Your task to perform on an android device: Is it going to rain today? Image 0: 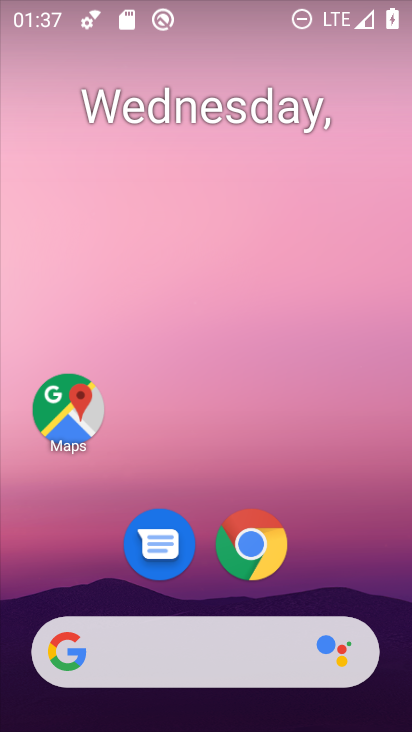
Step 0: drag from (322, 586) to (319, 37)
Your task to perform on an android device: Is it going to rain today? Image 1: 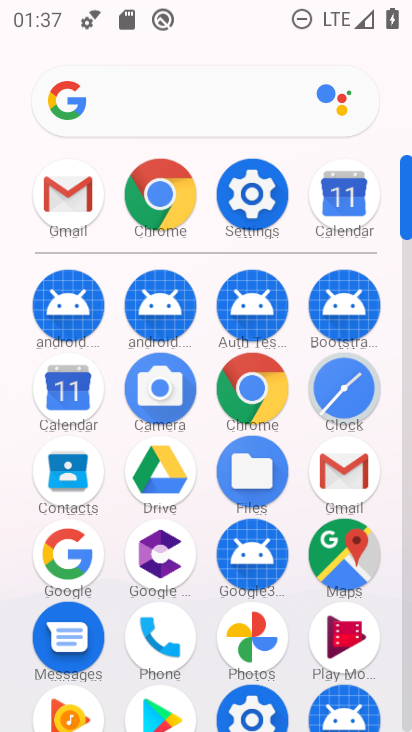
Step 1: click (242, 95)
Your task to perform on an android device: Is it going to rain today? Image 2: 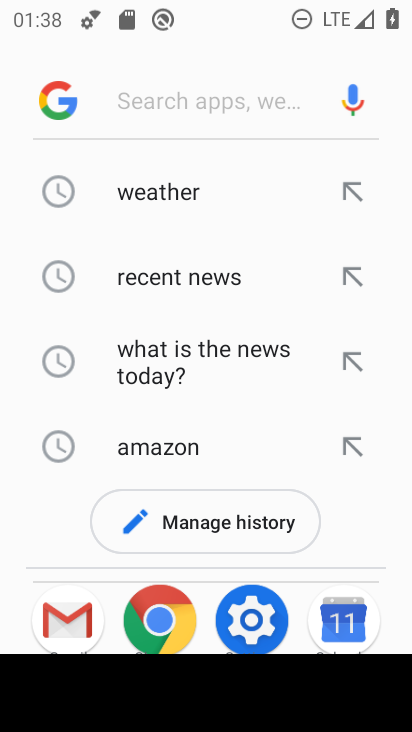
Step 2: type "is it going to rain today"
Your task to perform on an android device: Is it going to rain today? Image 3: 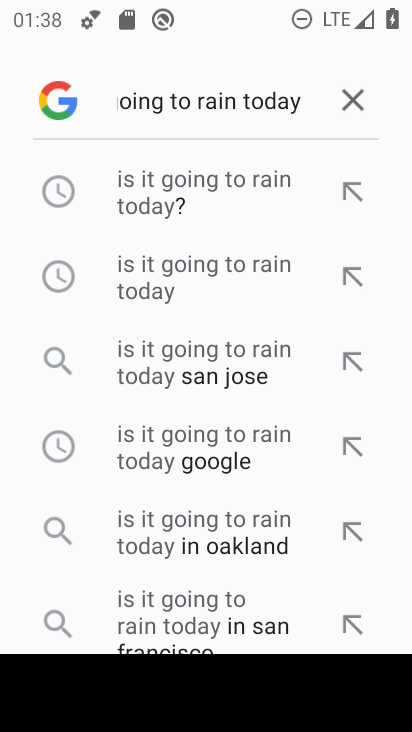
Step 3: click (159, 201)
Your task to perform on an android device: Is it going to rain today? Image 4: 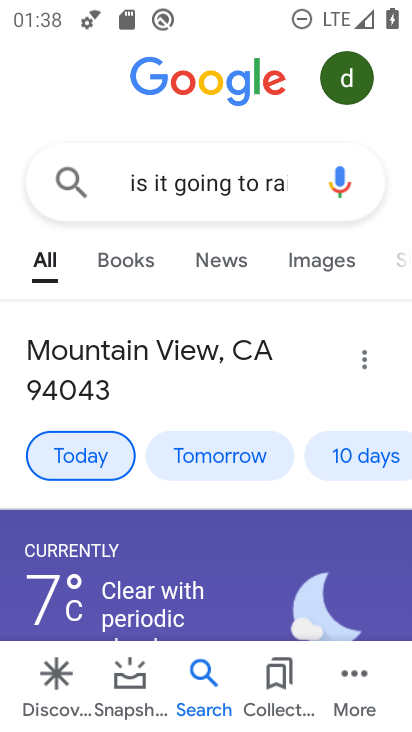
Step 4: task complete